Your task to perform on an android device: delete a single message in the gmail app Image 0: 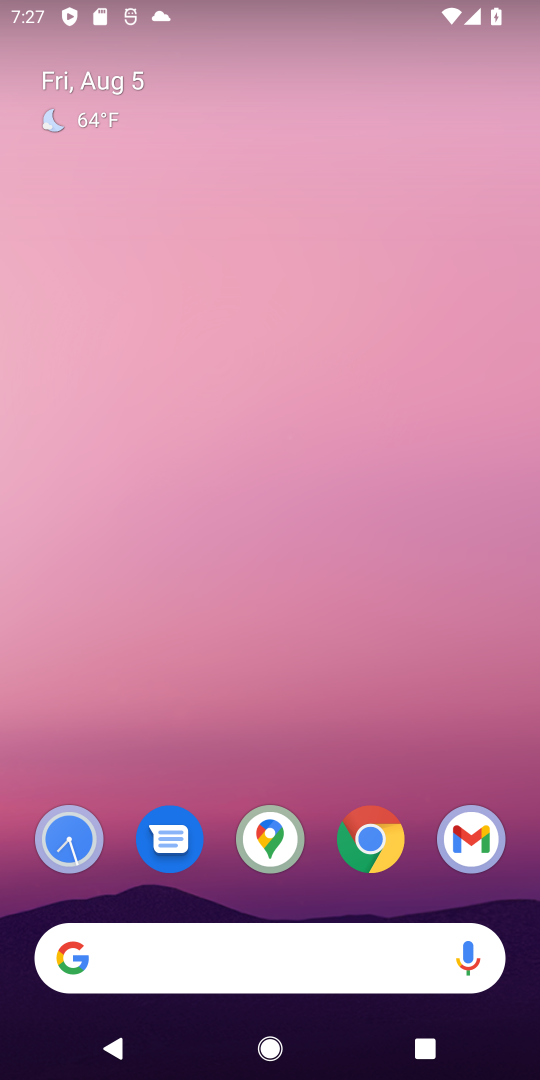
Step 0: drag from (314, 832) to (275, 117)
Your task to perform on an android device: delete a single message in the gmail app Image 1: 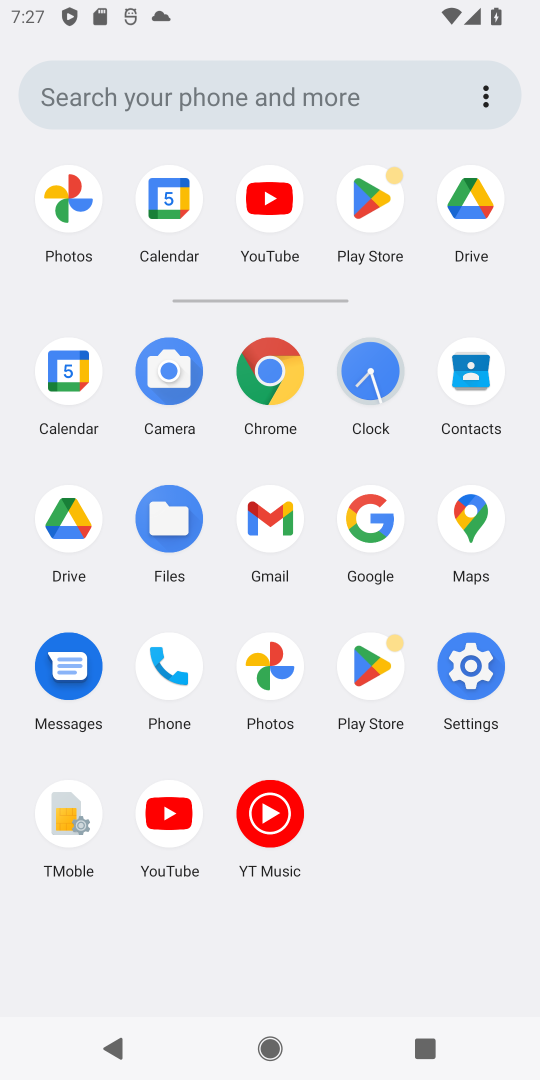
Step 1: click (275, 537)
Your task to perform on an android device: delete a single message in the gmail app Image 2: 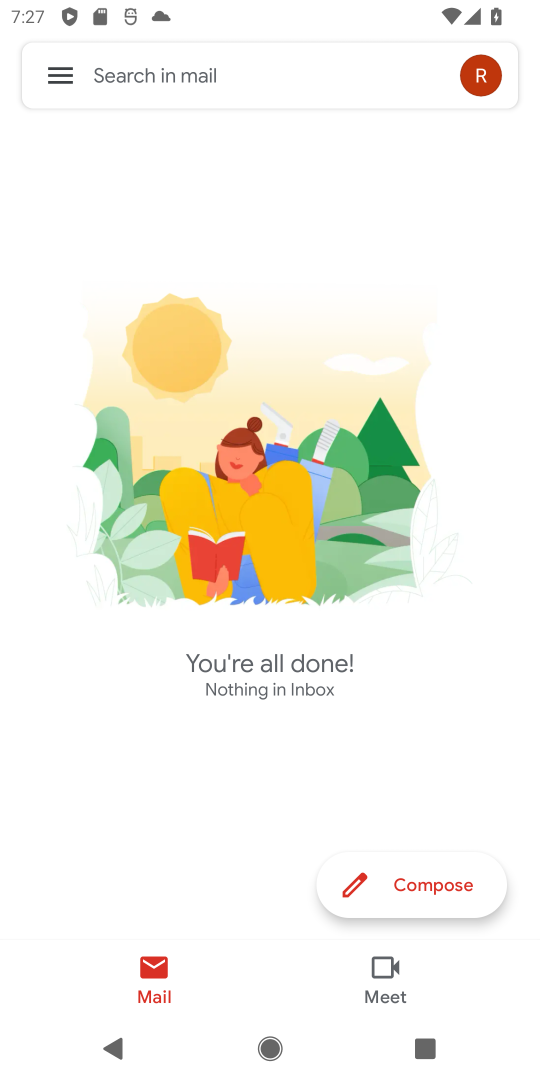
Step 2: task complete